Your task to perform on an android device: add a label to a message in the gmail app Image 0: 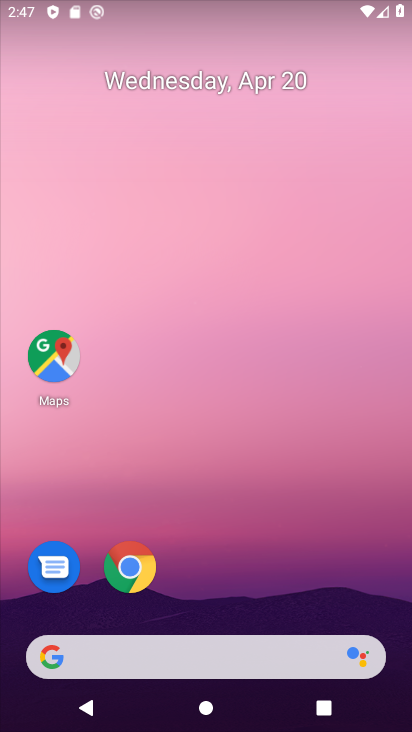
Step 0: drag from (240, 604) to (328, 26)
Your task to perform on an android device: add a label to a message in the gmail app Image 1: 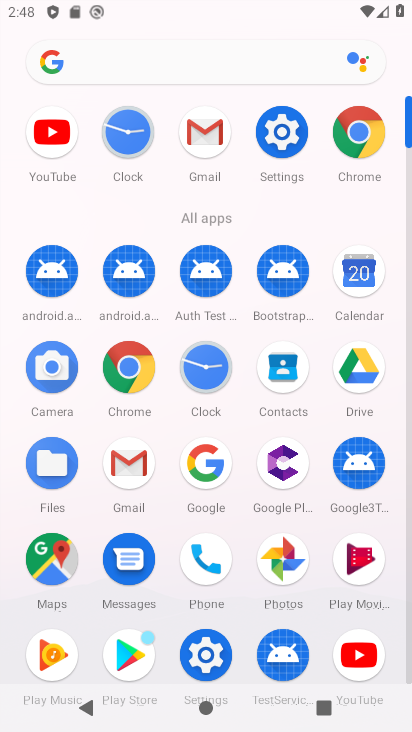
Step 1: click (135, 474)
Your task to perform on an android device: add a label to a message in the gmail app Image 2: 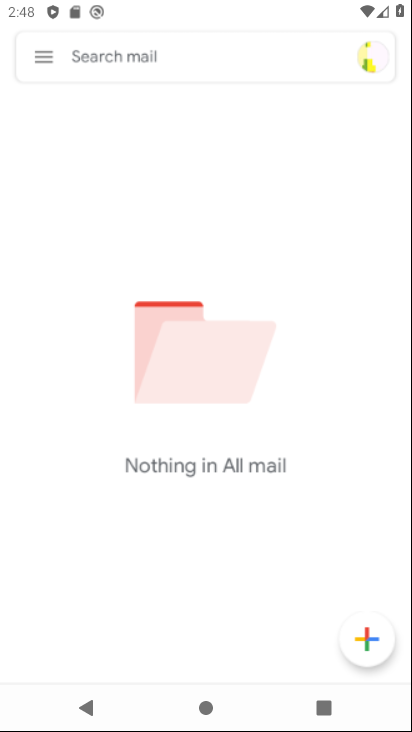
Step 2: click (131, 461)
Your task to perform on an android device: add a label to a message in the gmail app Image 3: 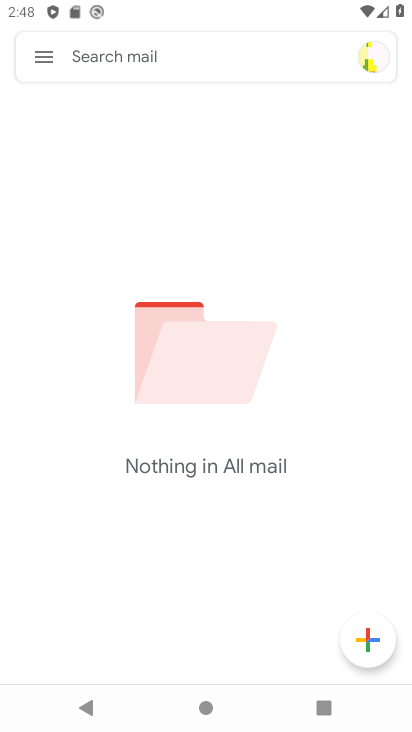
Step 3: task complete